Your task to perform on an android device: Open calendar and show me the fourth week of next month Image 0: 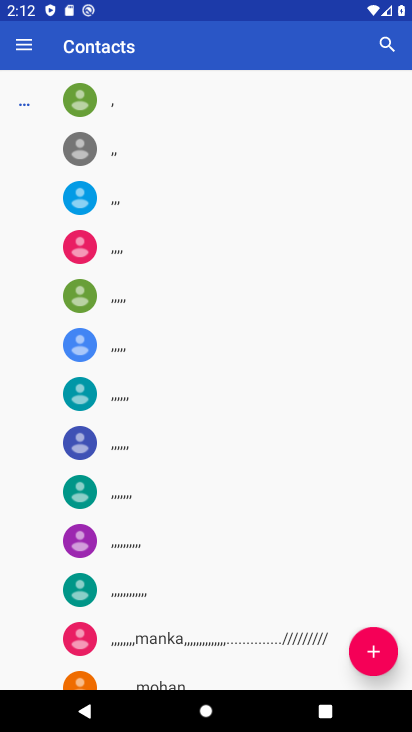
Step 0: press home button
Your task to perform on an android device: Open calendar and show me the fourth week of next month Image 1: 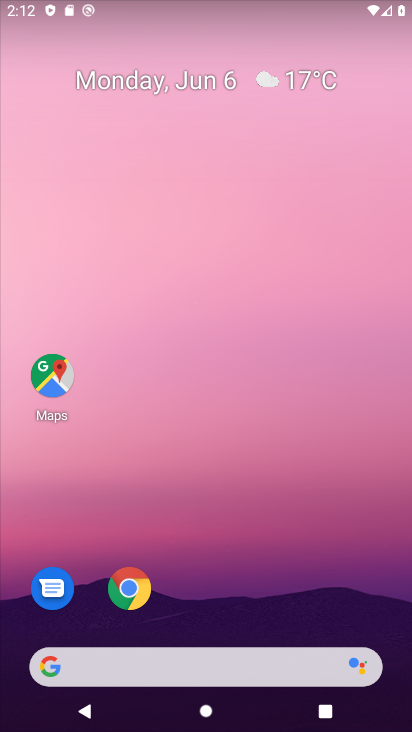
Step 1: drag from (203, 659) to (388, 33)
Your task to perform on an android device: Open calendar and show me the fourth week of next month Image 2: 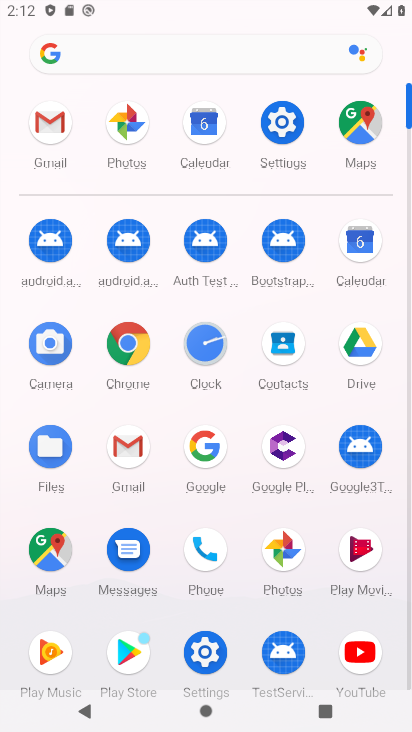
Step 2: click (368, 268)
Your task to perform on an android device: Open calendar and show me the fourth week of next month Image 3: 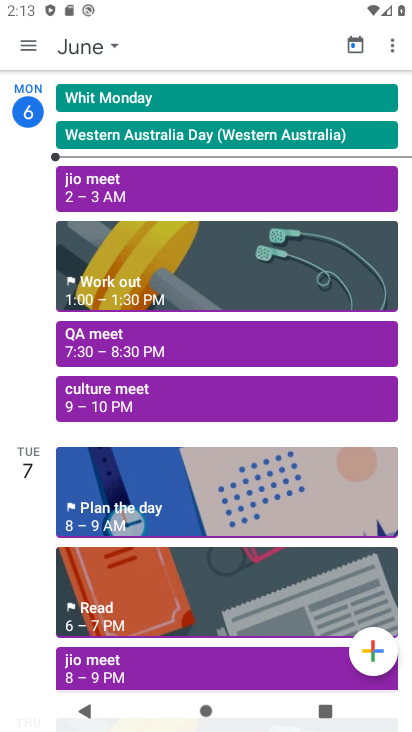
Step 3: click (24, 32)
Your task to perform on an android device: Open calendar and show me the fourth week of next month Image 4: 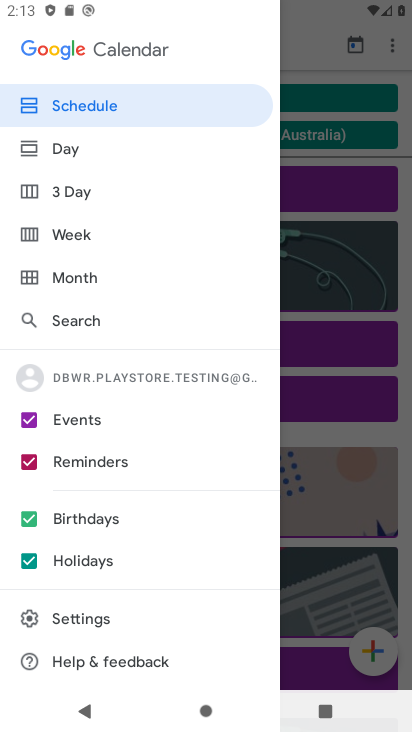
Step 4: click (90, 276)
Your task to perform on an android device: Open calendar and show me the fourth week of next month Image 5: 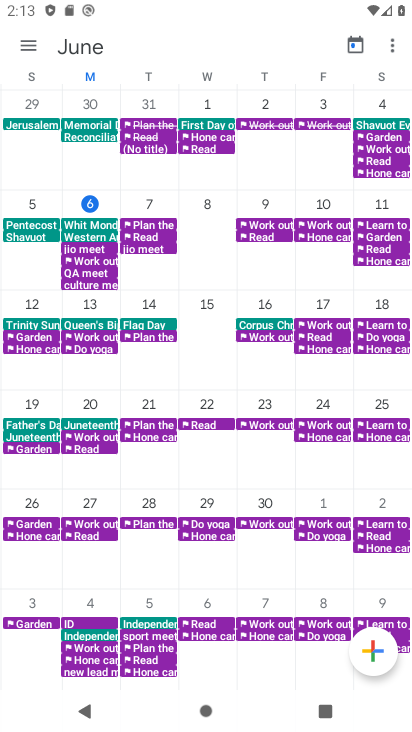
Step 5: task complete